Your task to perform on an android device: open app "Booking.com: Hotels and more" (install if not already installed) Image 0: 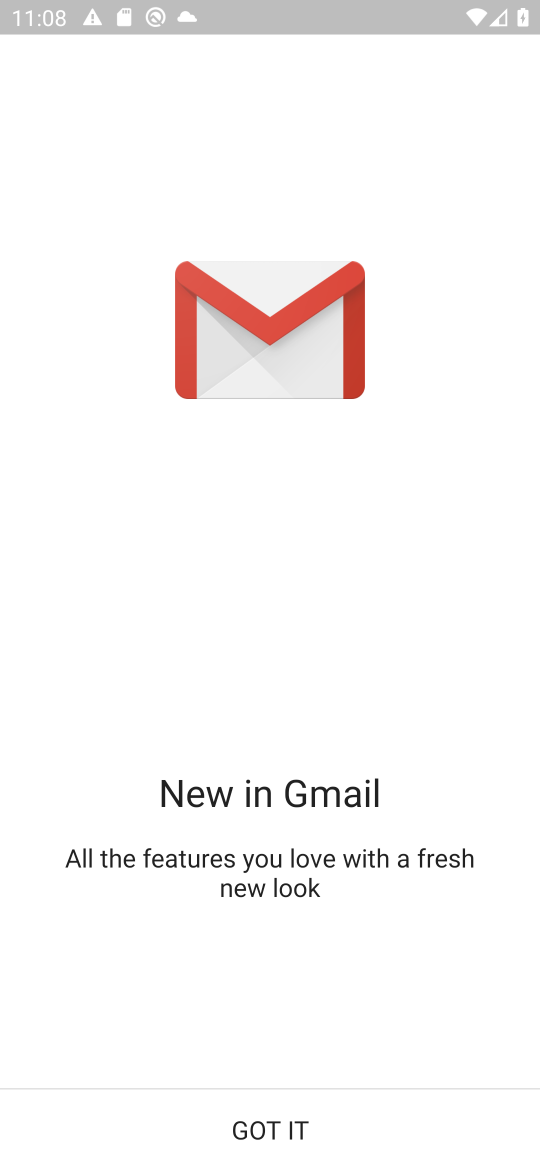
Step 0: press home button
Your task to perform on an android device: open app "Booking.com: Hotels and more" (install if not already installed) Image 1: 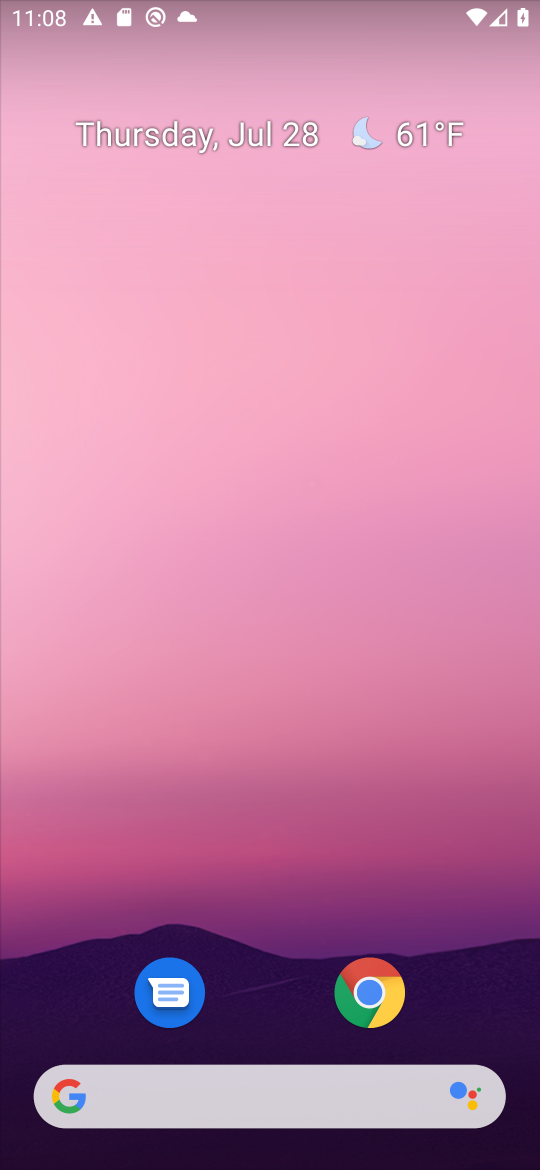
Step 1: drag from (150, 1113) to (389, 365)
Your task to perform on an android device: open app "Booking.com: Hotels and more" (install if not already installed) Image 2: 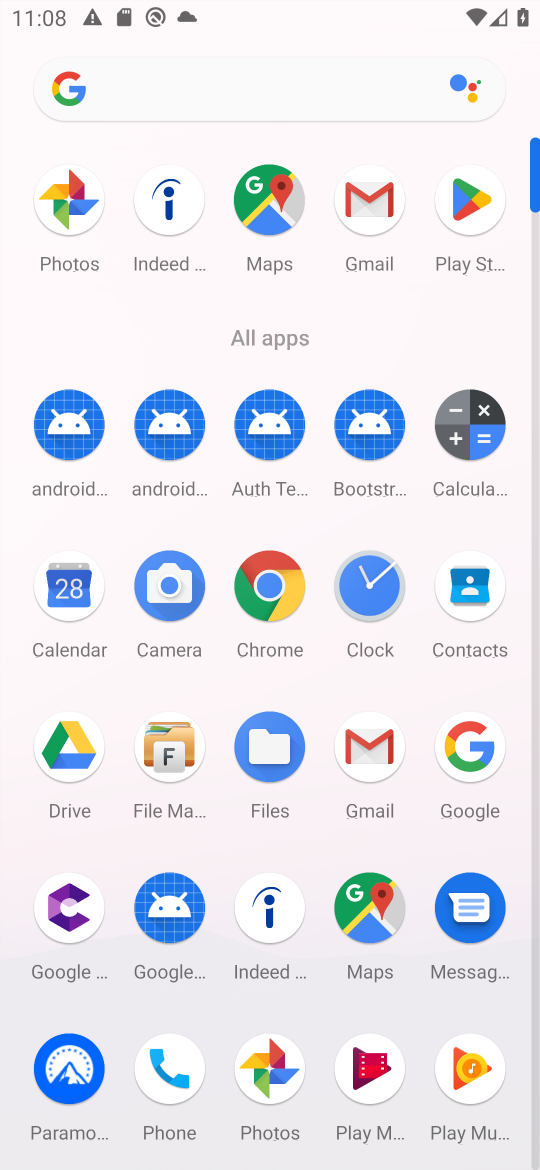
Step 2: click (472, 209)
Your task to perform on an android device: open app "Booking.com: Hotels and more" (install if not already installed) Image 3: 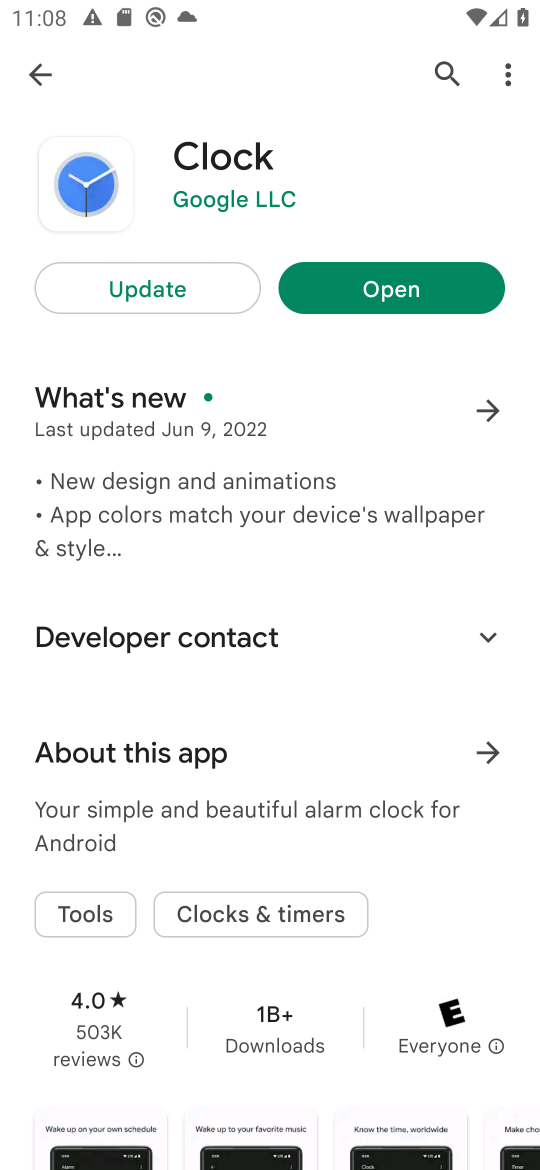
Step 3: click (442, 69)
Your task to perform on an android device: open app "Booking.com: Hotels and more" (install if not already installed) Image 4: 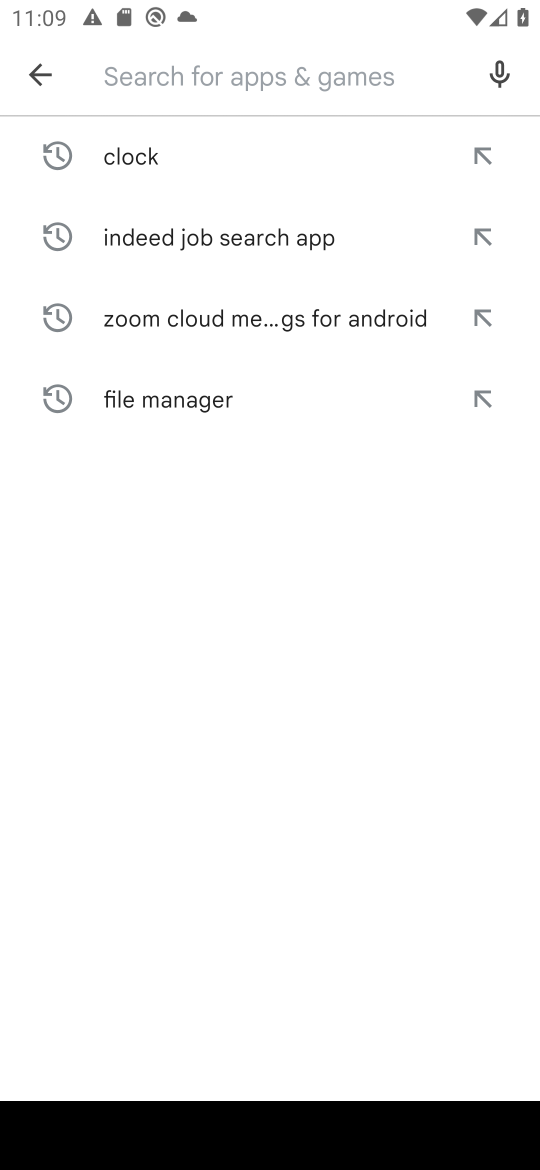
Step 4: click (264, 72)
Your task to perform on an android device: open app "Booking.com: Hotels and more" (install if not already installed) Image 5: 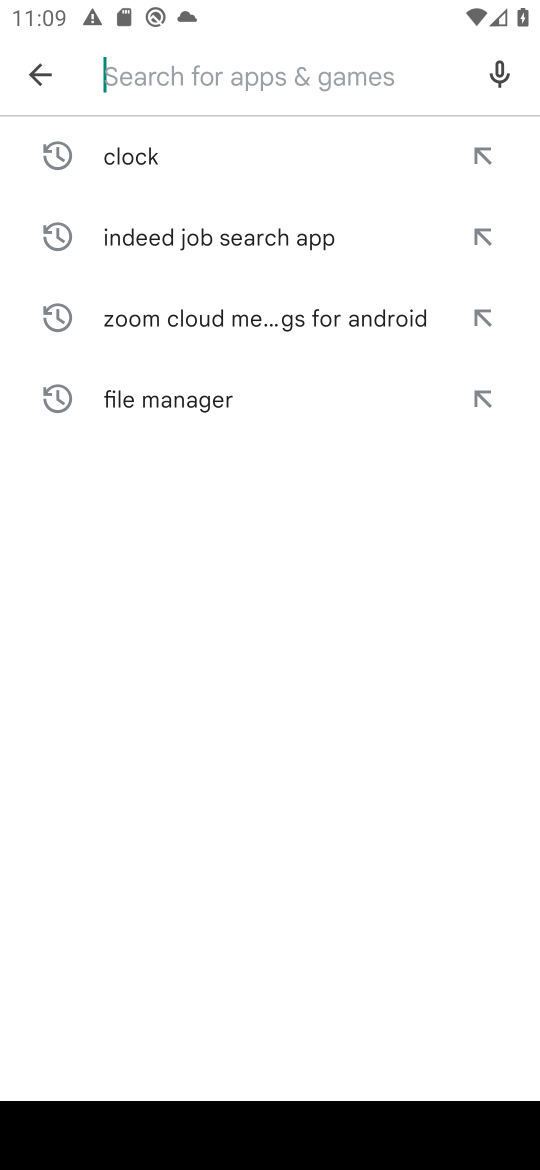
Step 5: type "Booking.com: Hotels and more"
Your task to perform on an android device: open app "Booking.com: Hotels and more" (install if not already installed) Image 6: 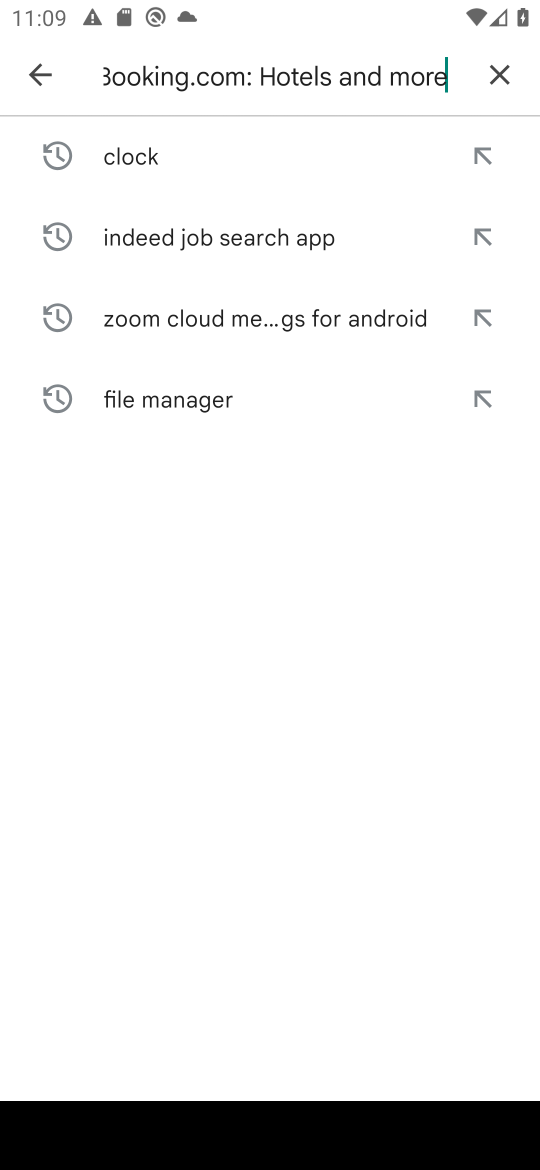
Step 6: type ""
Your task to perform on an android device: open app "Booking.com: Hotels and more" (install if not already installed) Image 7: 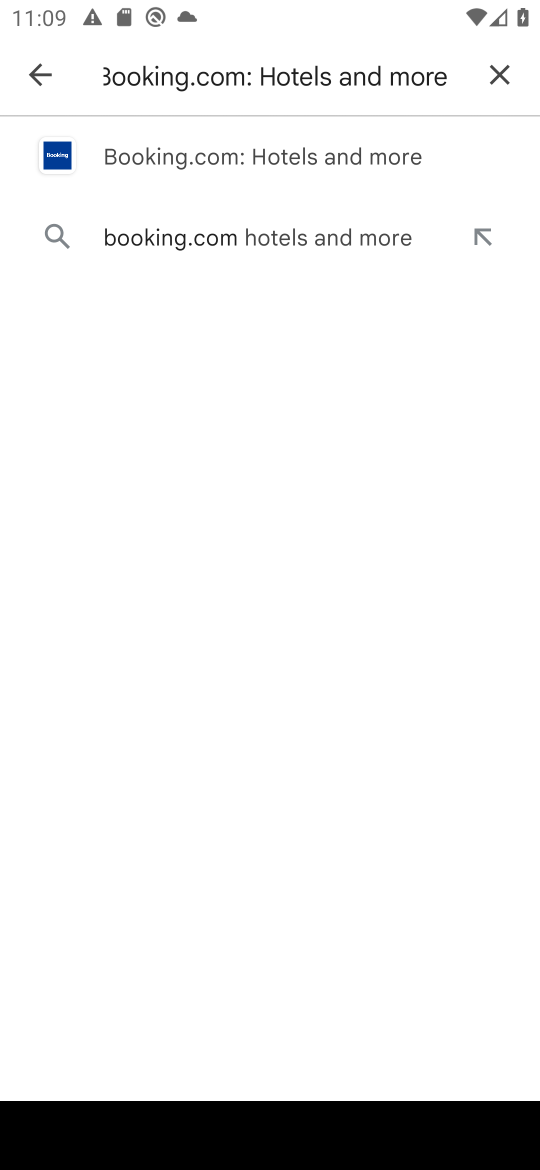
Step 7: click (165, 161)
Your task to perform on an android device: open app "Booking.com: Hotels and more" (install if not already installed) Image 8: 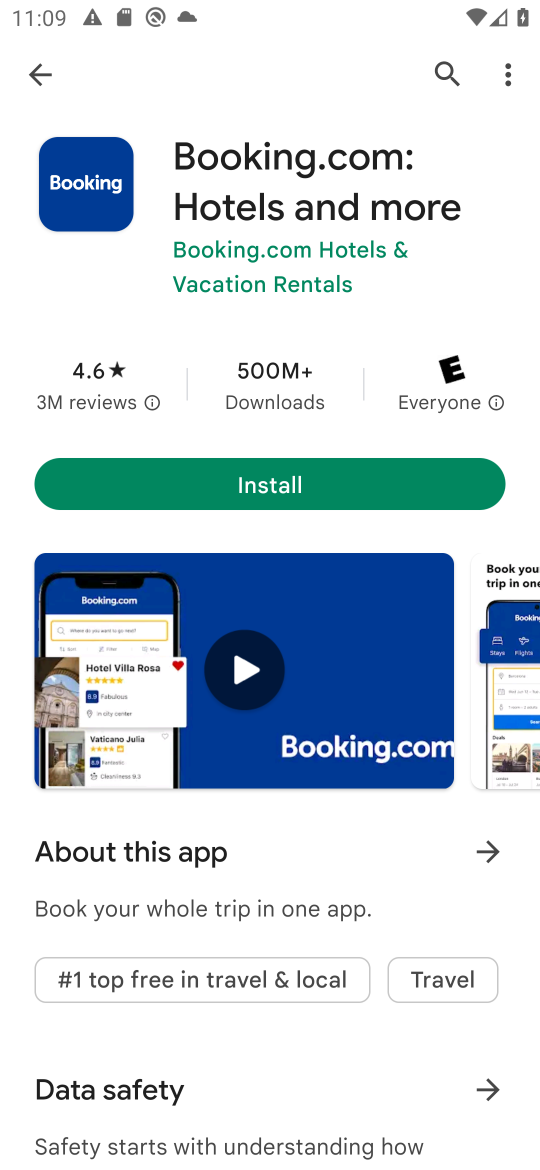
Step 8: click (304, 485)
Your task to perform on an android device: open app "Booking.com: Hotels and more" (install if not already installed) Image 9: 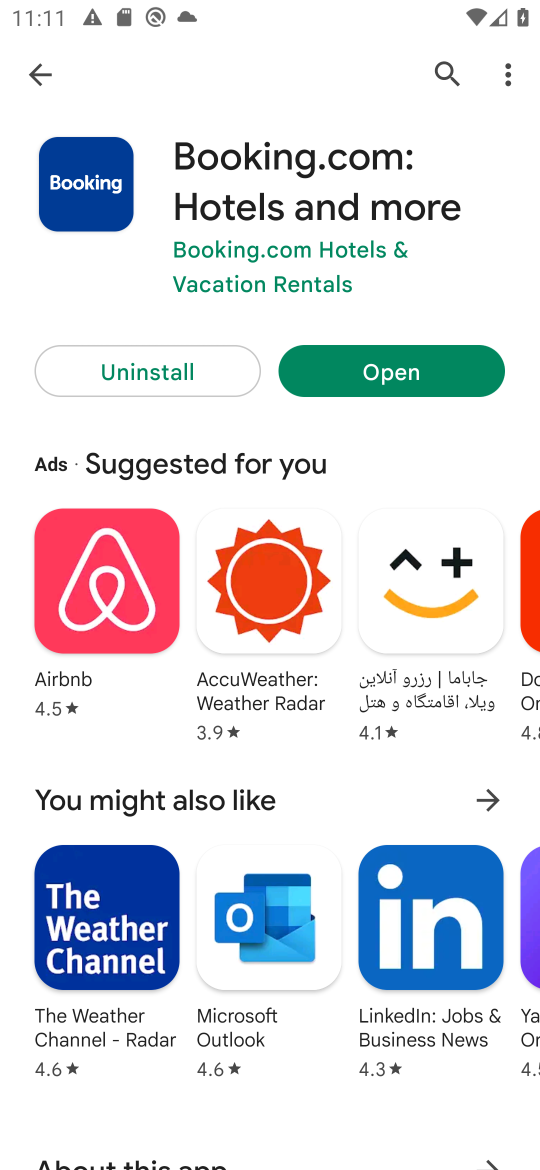
Step 9: click (393, 369)
Your task to perform on an android device: open app "Booking.com: Hotels and more" (install if not already installed) Image 10: 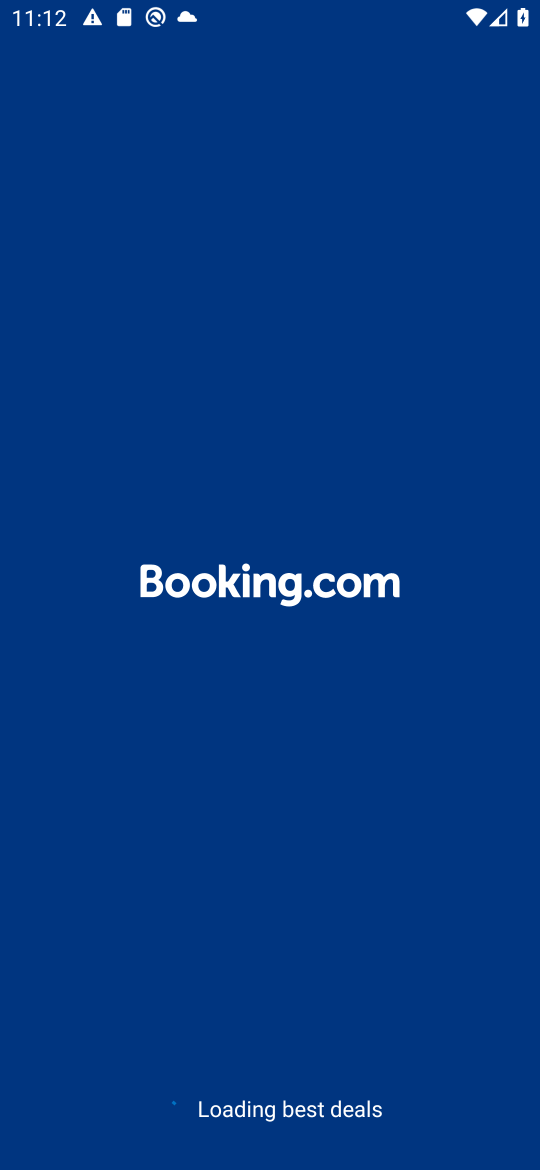
Step 10: task complete